Your task to perform on an android device: Open settings Image 0: 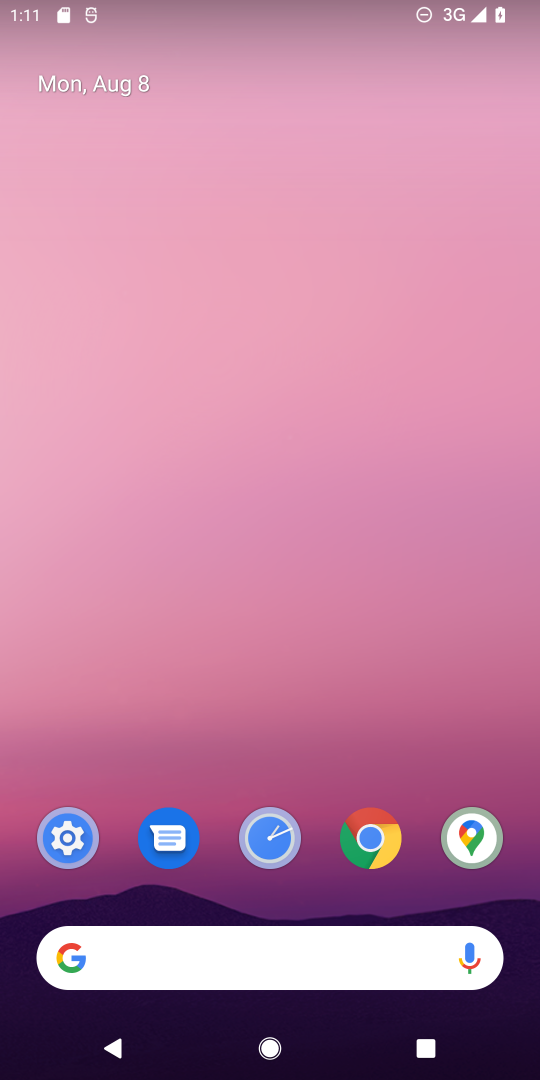
Step 0: press home button
Your task to perform on an android device: Open settings Image 1: 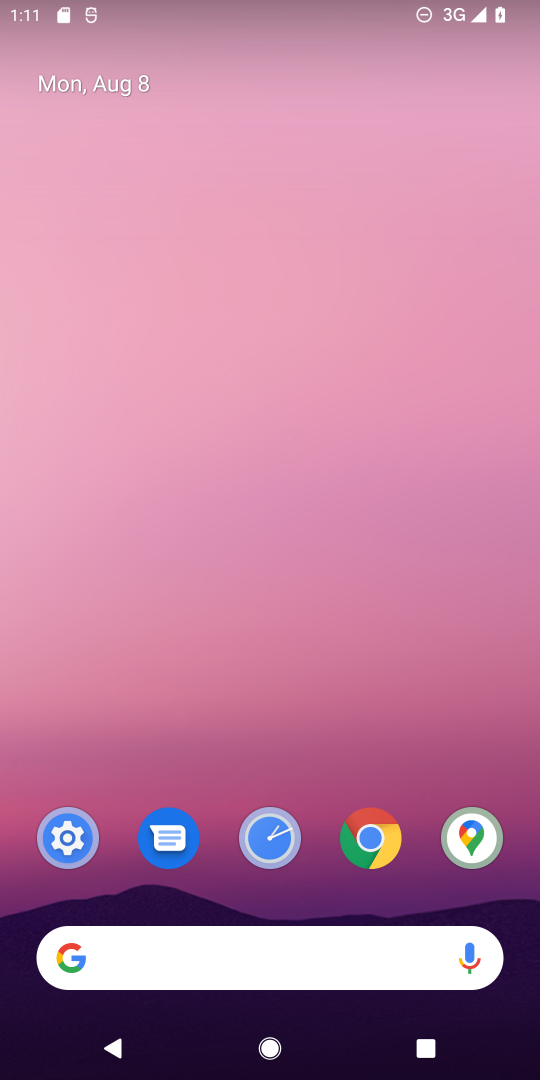
Step 1: click (62, 835)
Your task to perform on an android device: Open settings Image 2: 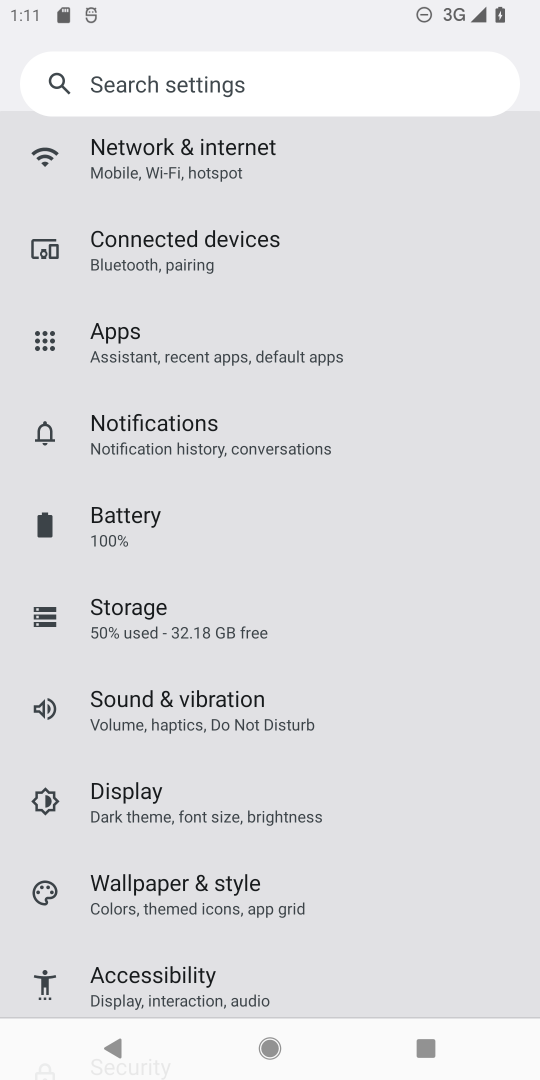
Step 2: task complete